Your task to perform on an android device: Open the calendar app, open the side menu, and click the "Day" option Image 0: 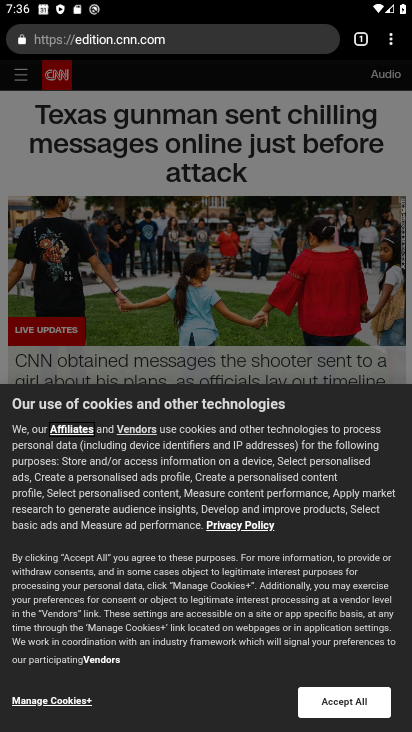
Step 0: press home button
Your task to perform on an android device: Open the calendar app, open the side menu, and click the "Day" option Image 1: 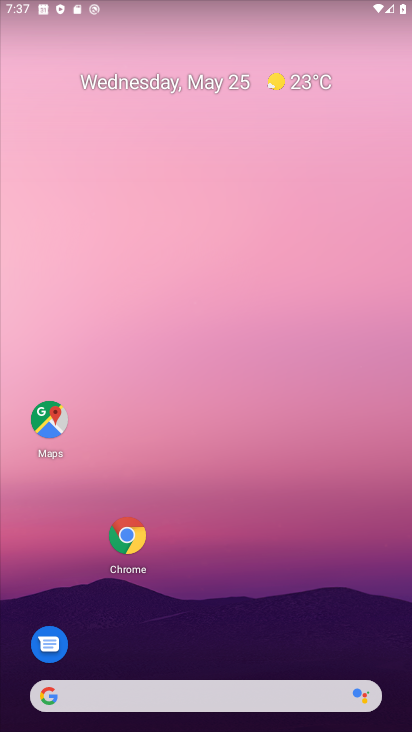
Step 1: drag from (184, 678) to (149, 239)
Your task to perform on an android device: Open the calendar app, open the side menu, and click the "Day" option Image 2: 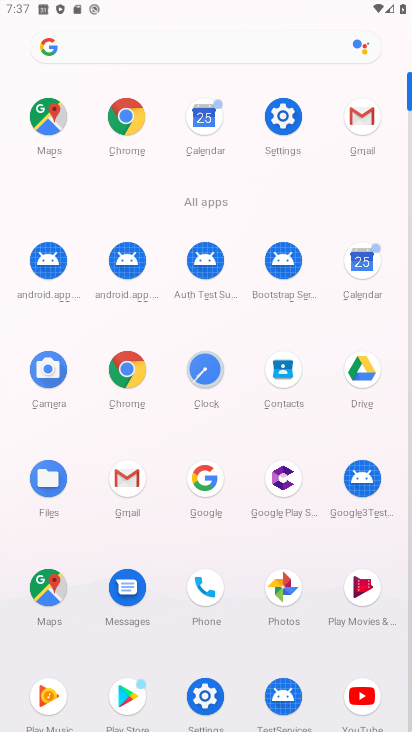
Step 2: click (358, 270)
Your task to perform on an android device: Open the calendar app, open the side menu, and click the "Day" option Image 3: 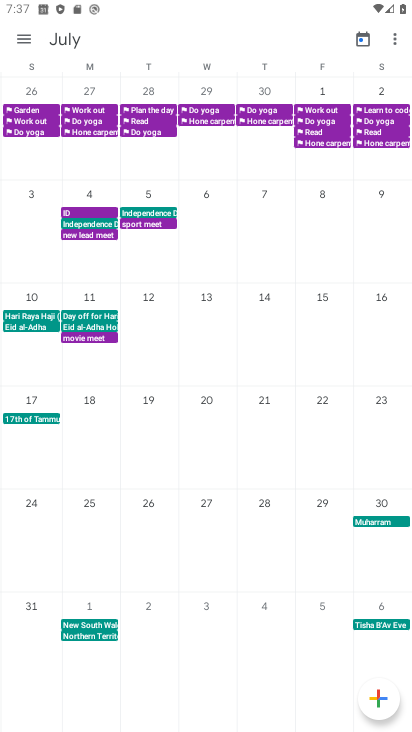
Step 3: click (354, 270)
Your task to perform on an android device: Open the calendar app, open the side menu, and click the "Day" option Image 4: 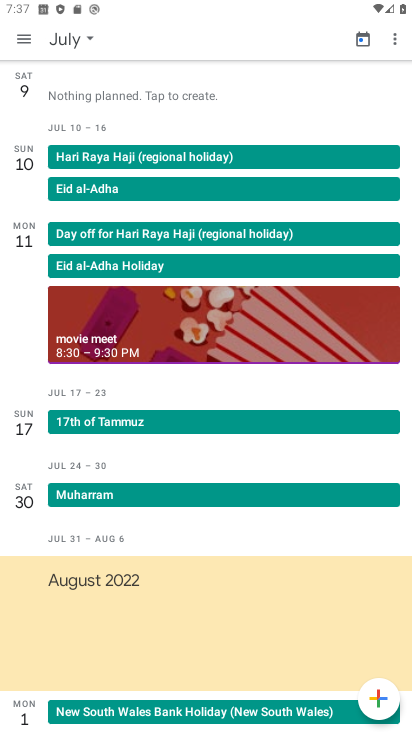
Step 4: click (26, 40)
Your task to perform on an android device: Open the calendar app, open the side menu, and click the "Day" option Image 5: 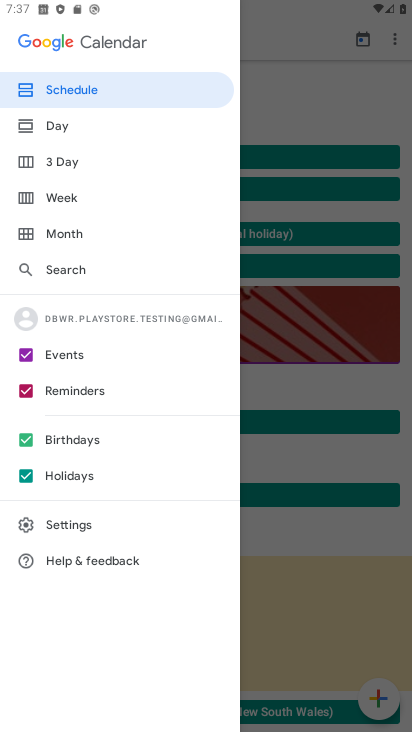
Step 5: click (35, 124)
Your task to perform on an android device: Open the calendar app, open the side menu, and click the "Day" option Image 6: 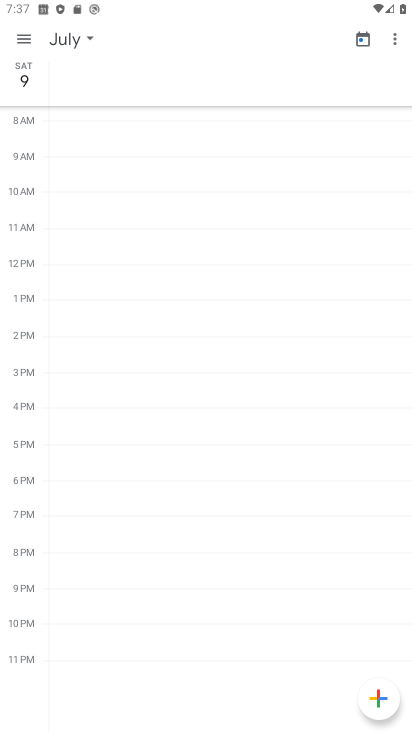
Step 6: task complete